Your task to perform on an android device: Go to eBay Image 0: 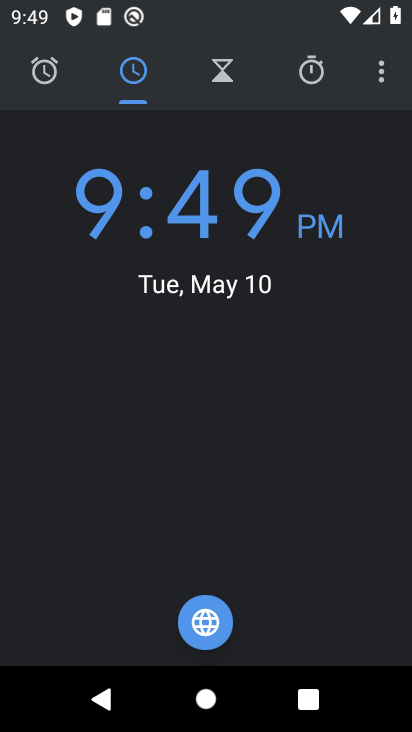
Step 0: press home button
Your task to perform on an android device: Go to eBay Image 1: 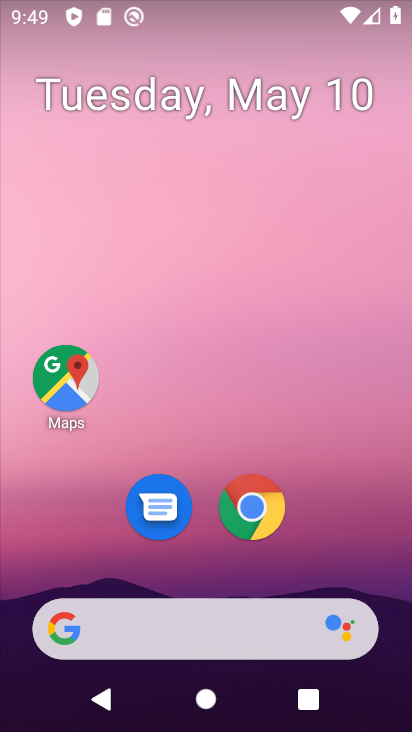
Step 1: click (242, 497)
Your task to perform on an android device: Go to eBay Image 2: 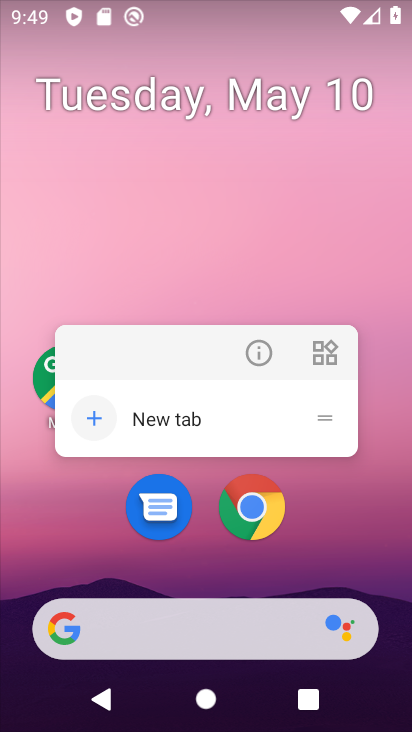
Step 2: click (243, 509)
Your task to perform on an android device: Go to eBay Image 3: 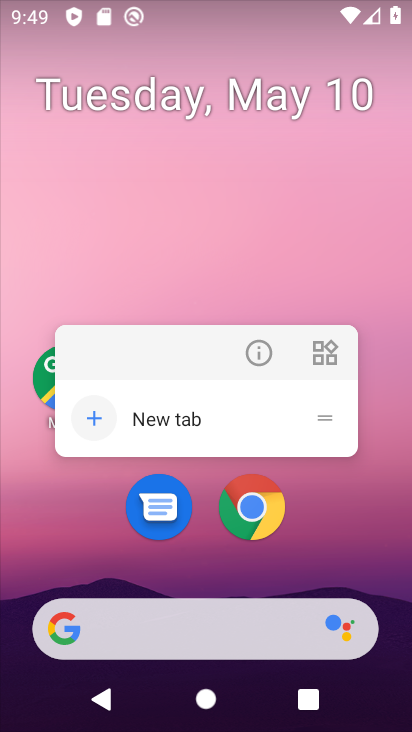
Step 3: click (243, 509)
Your task to perform on an android device: Go to eBay Image 4: 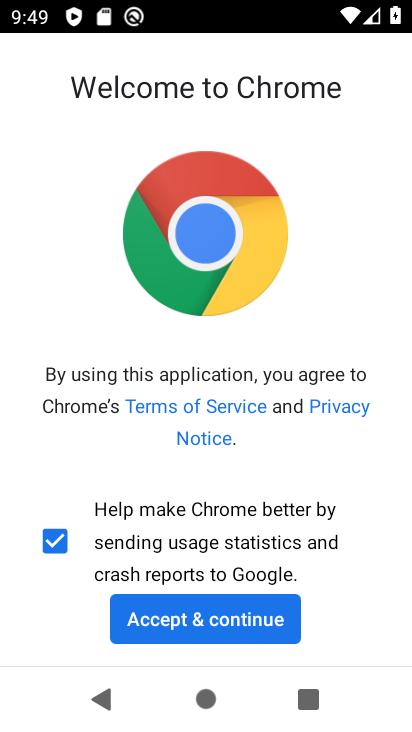
Step 4: click (261, 641)
Your task to perform on an android device: Go to eBay Image 5: 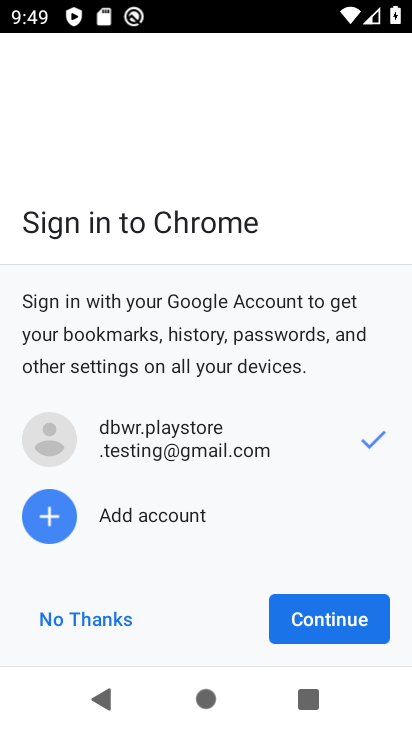
Step 5: click (327, 637)
Your task to perform on an android device: Go to eBay Image 6: 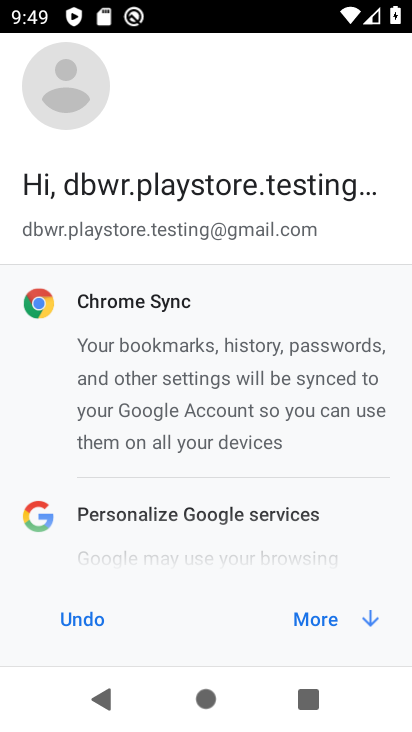
Step 6: click (328, 604)
Your task to perform on an android device: Go to eBay Image 7: 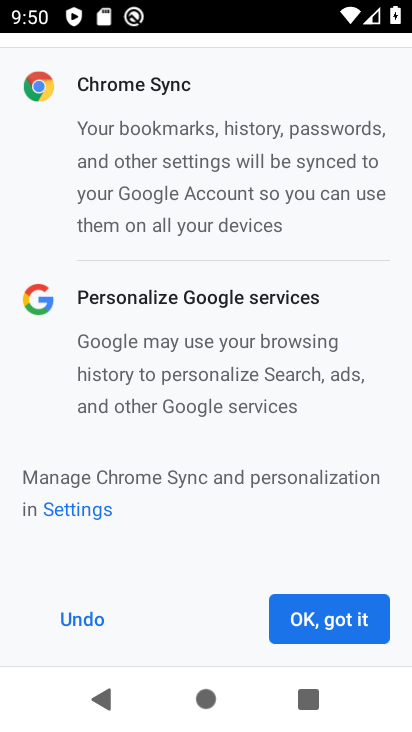
Step 7: click (328, 604)
Your task to perform on an android device: Go to eBay Image 8: 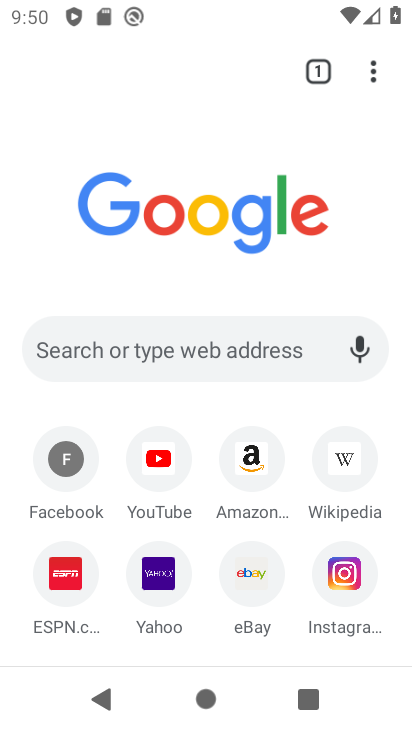
Step 8: click (247, 569)
Your task to perform on an android device: Go to eBay Image 9: 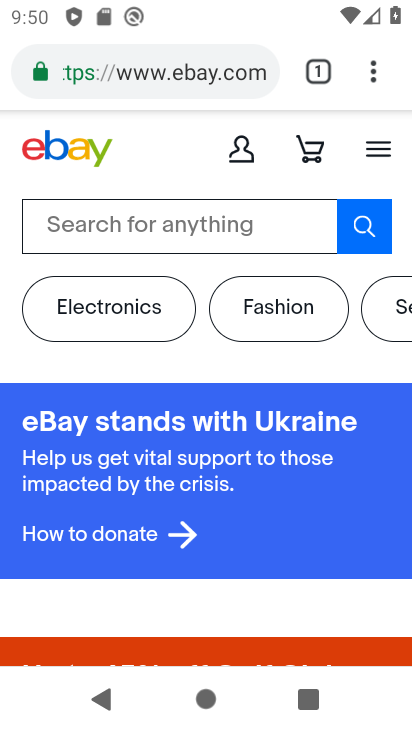
Step 9: task complete